Your task to perform on an android device: Open calendar and show me the second week of next month Image 0: 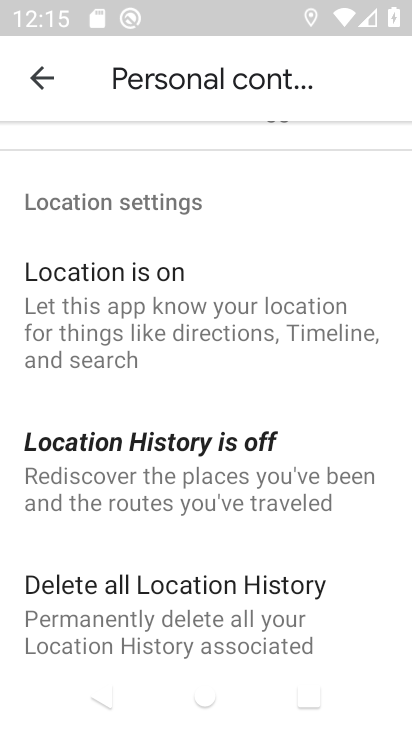
Step 0: press home button
Your task to perform on an android device: Open calendar and show me the second week of next month Image 1: 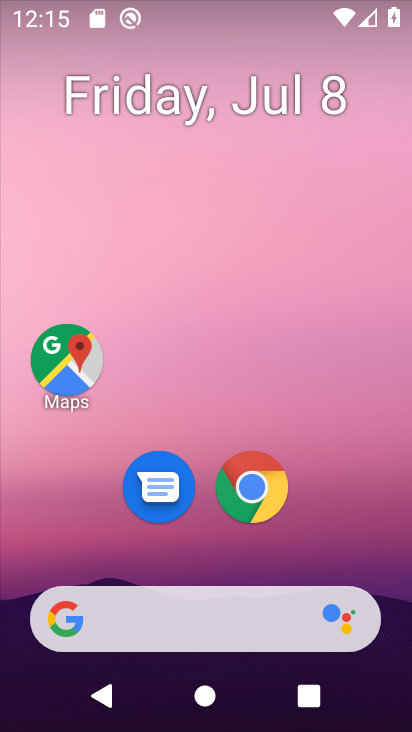
Step 1: drag from (373, 536) to (349, 134)
Your task to perform on an android device: Open calendar and show me the second week of next month Image 2: 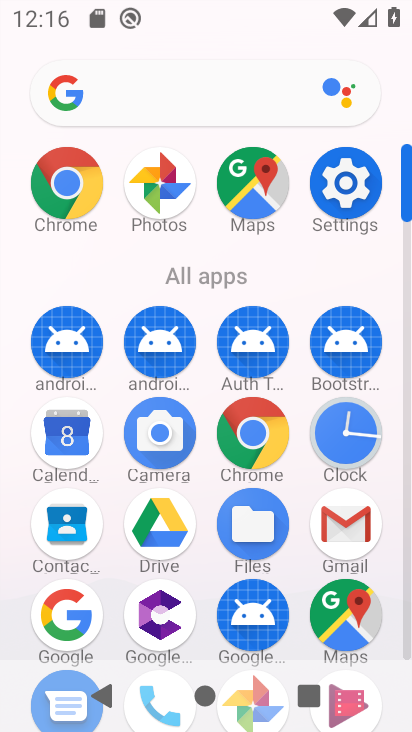
Step 2: click (72, 440)
Your task to perform on an android device: Open calendar and show me the second week of next month Image 3: 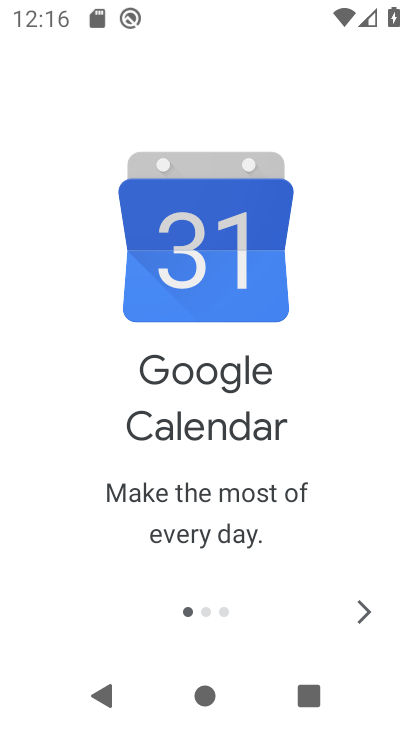
Step 3: click (358, 611)
Your task to perform on an android device: Open calendar and show me the second week of next month Image 4: 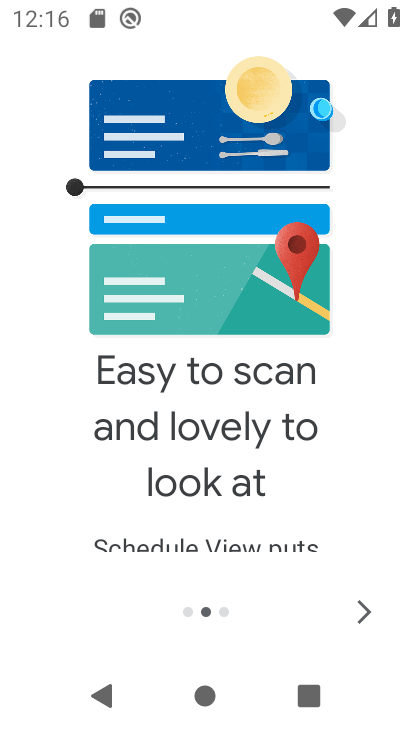
Step 4: click (358, 611)
Your task to perform on an android device: Open calendar and show me the second week of next month Image 5: 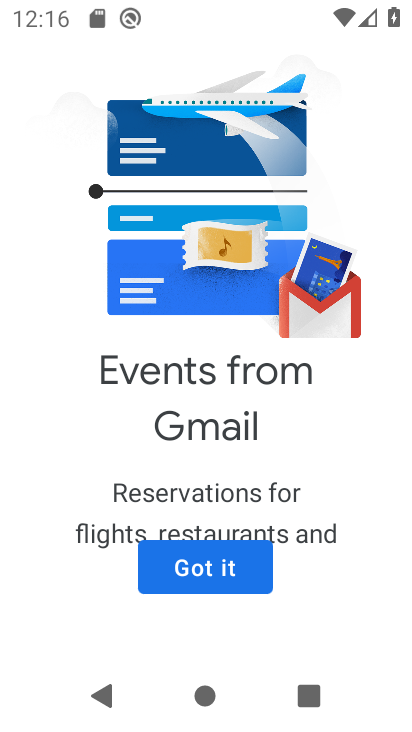
Step 5: click (227, 566)
Your task to perform on an android device: Open calendar and show me the second week of next month Image 6: 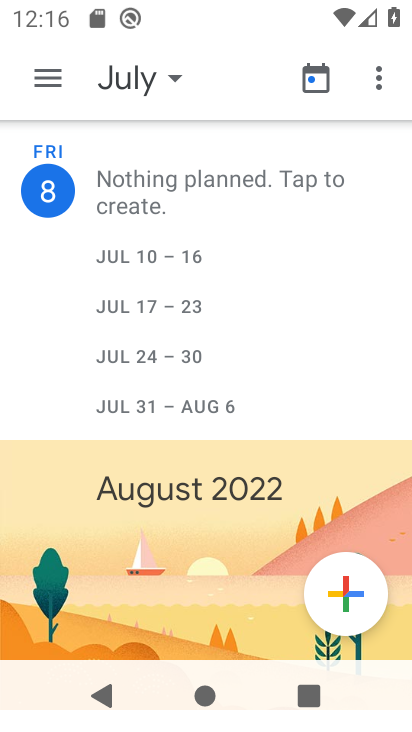
Step 6: click (176, 82)
Your task to perform on an android device: Open calendar and show me the second week of next month Image 7: 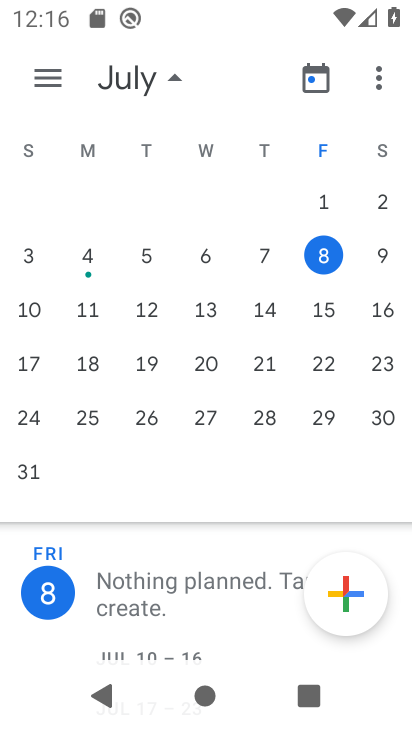
Step 7: drag from (389, 170) to (28, 186)
Your task to perform on an android device: Open calendar and show me the second week of next month Image 8: 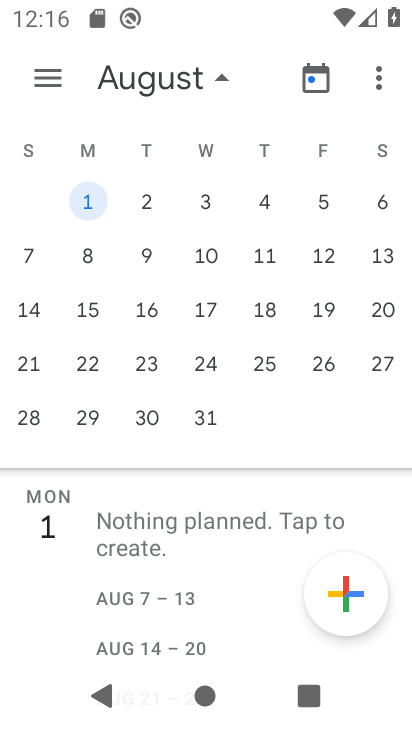
Step 8: click (81, 262)
Your task to perform on an android device: Open calendar and show me the second week of next month Image 9: 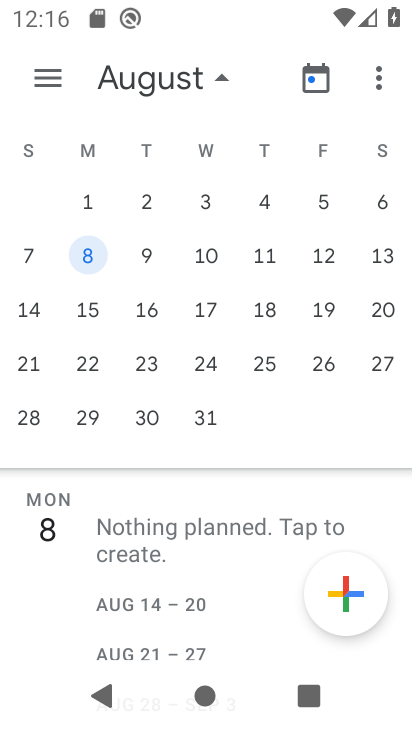
Step 9: task complete